Your task to perform on an android device: Is it going to rain this weekend? Image 0: 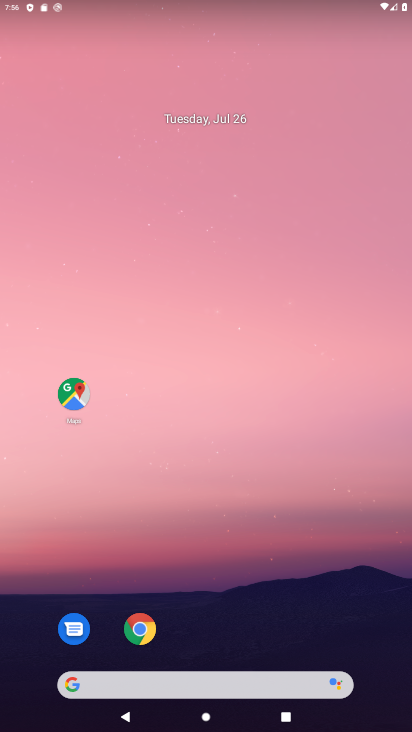
Step 0: press home button
Your task to perform on an android device: Is it going to rain this weekend? Image 1: 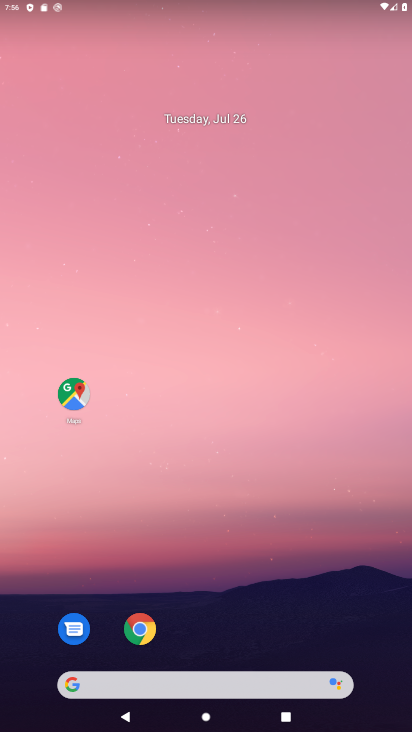
Step 1: press home button
Your task to perform on an android device: Is it going to rain this weekend? Image 2: 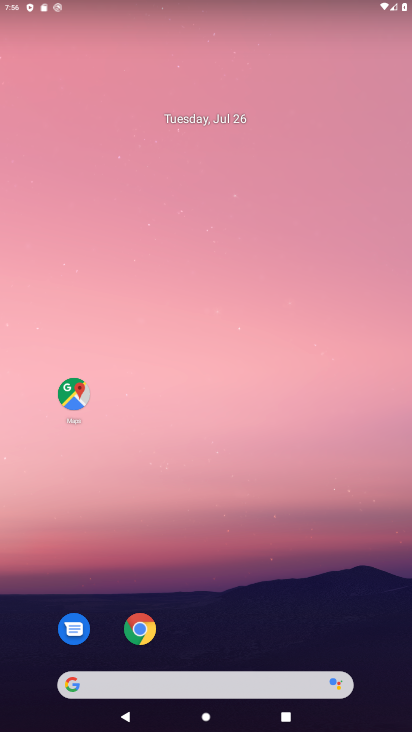
Step 2: click (174, 681)
Your task to perform on an android device: Is it going to rain this weekend? Image 3: 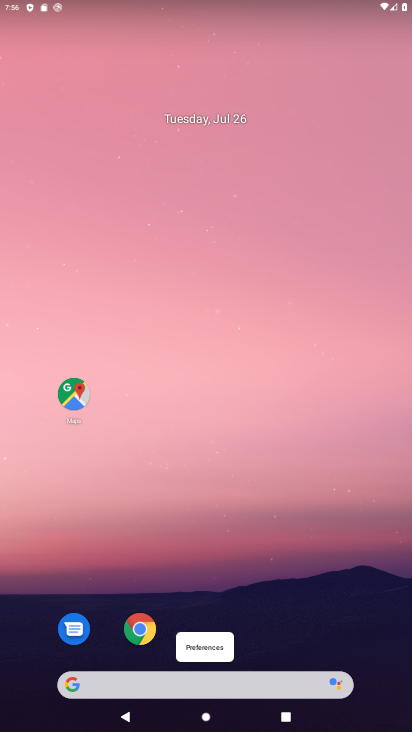
Step 3: click (141, 677)
Your task to perform on an android device: Is it going to rain this weekend? Image 4: 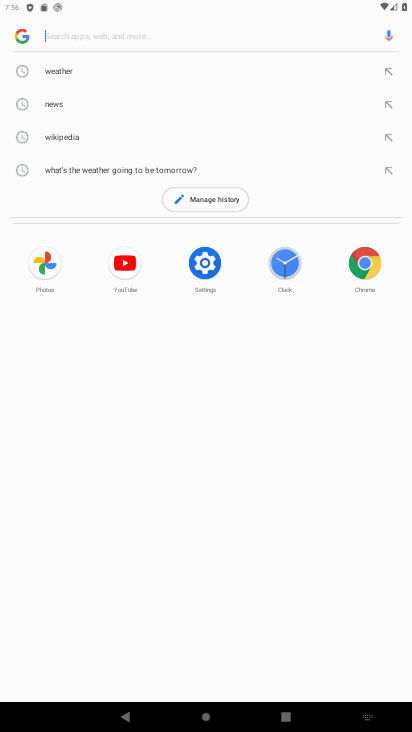
Step 4: click (81, 66)
Your task to perform on an android device: Is it going to rain this weekend? Image 5: 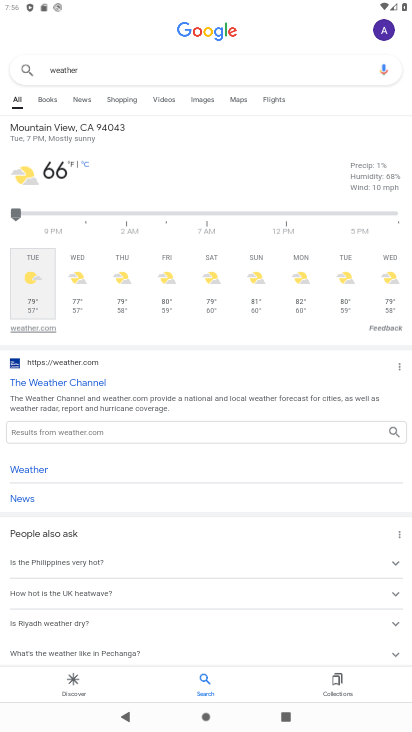
Step 5: click (213, 277)
Your task to perform on an android device: Is it going to rain this weekend? Image 6: 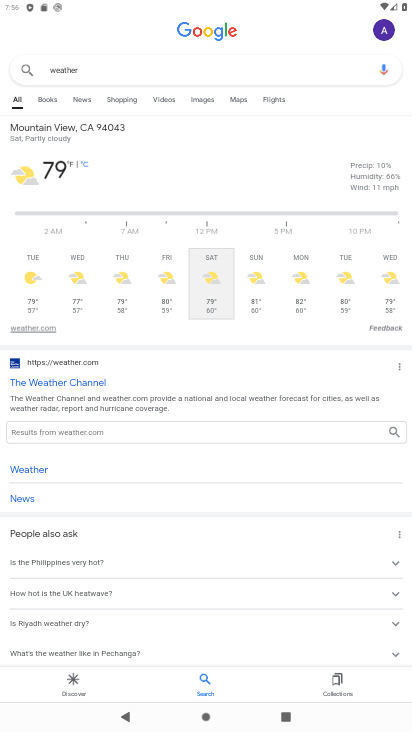
Step 6: click (257, 269)
Your task to perform on an android device: Is it going to rain this weekend? Image 7: 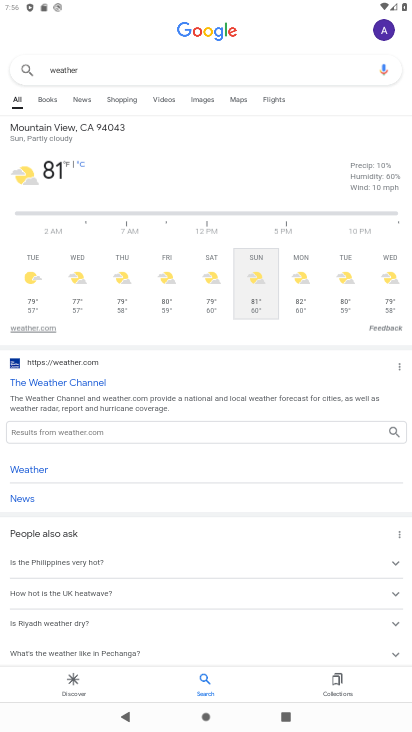
Step 7: task complete